Your task to perform on an android device: Open CNN.com Image 0: 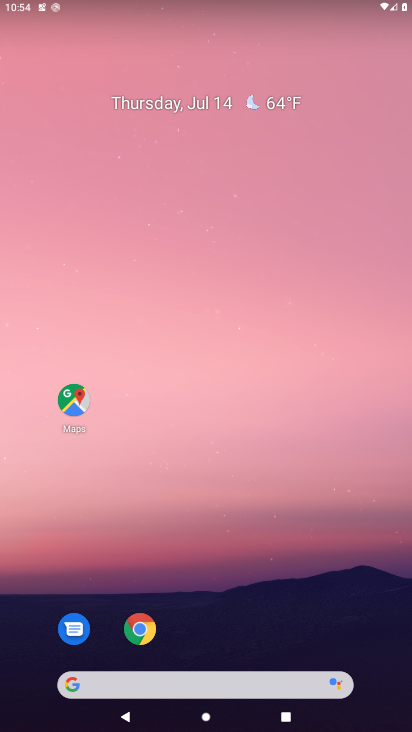
Step 0: drag from (138, 675) to (295, 8)
Your task to perform on an android device: Open CNN.com Image 1: 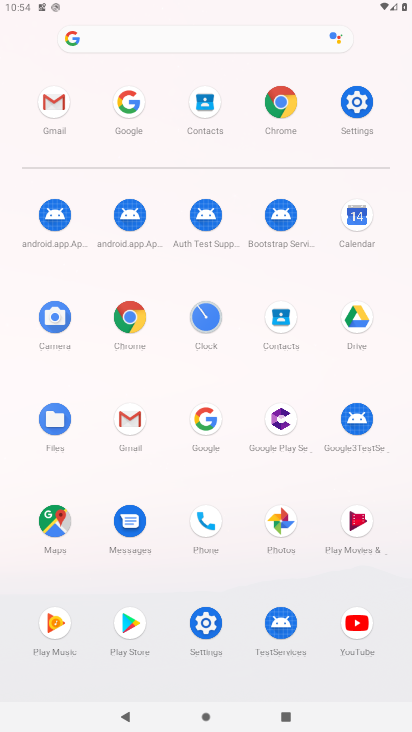
Step 1: click (196, 431)
Your task to perform on an android device: Open CNN.com Image 2: 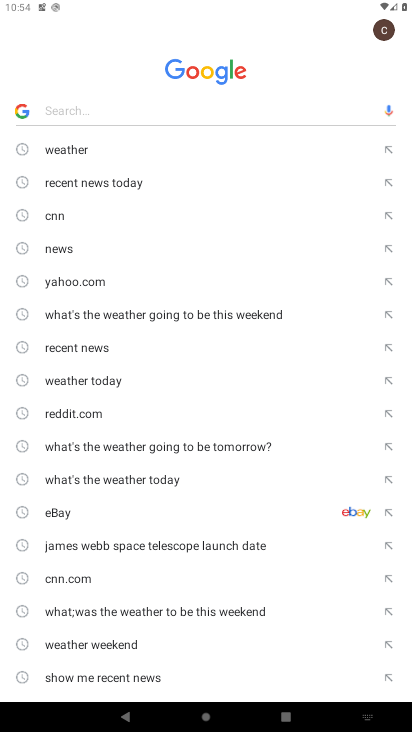
Step 2: click (90, 219)
Your task to perform on an android device: Open CNN.com Image 3: 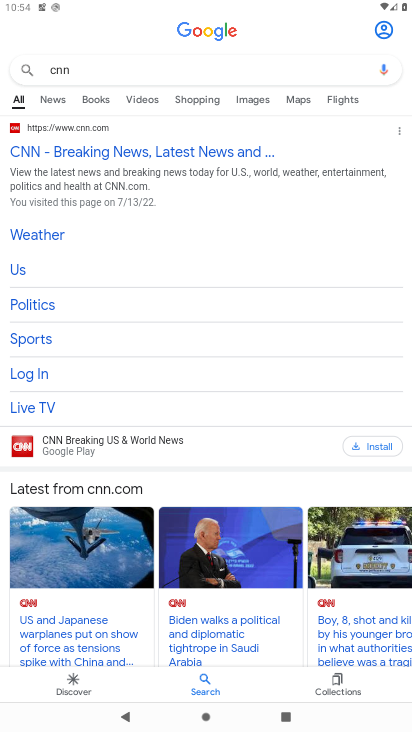
Step 3: click (87, 155)
Your task to perform on an android device: Open CNN.com Image 4: 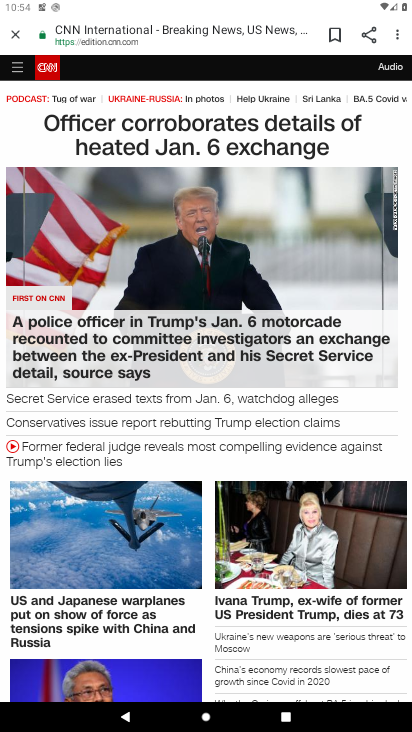
Step 4: task complete